Your task to perform on an android device: star an email in the gmail app Image 0: 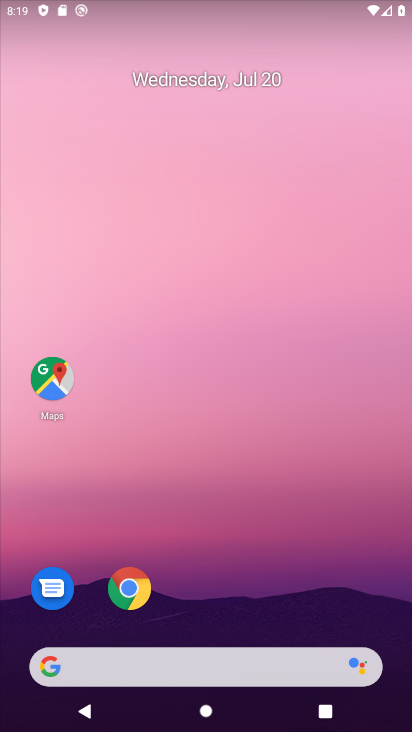
Step 0: drag from (224, 525) to (319, 26)
Your task to perform on an android device: star an email in the gmail app Image 1: 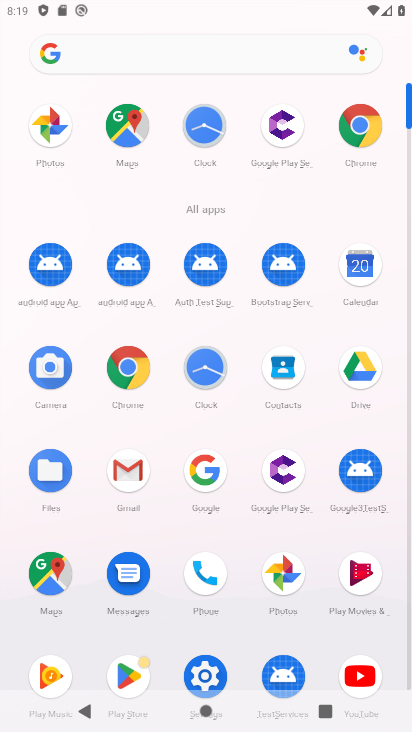
Step 1: click (121, 472)
Your task to perform on an android device: star an email in the gmail app Image 2: 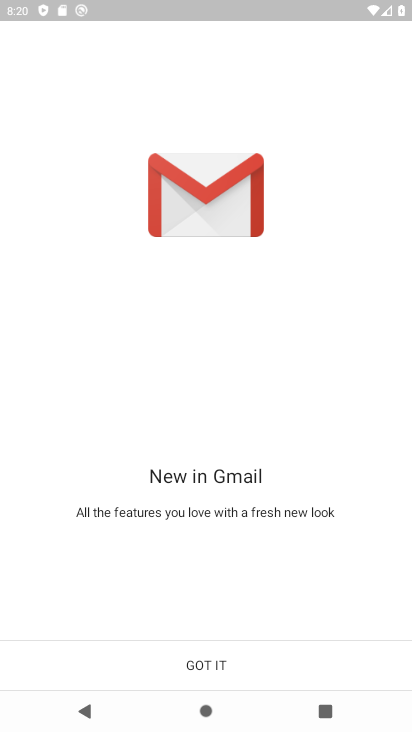
Step 2: click (193, 671)
Your task to perform on an android device: star an email in the gmail app Image 3: 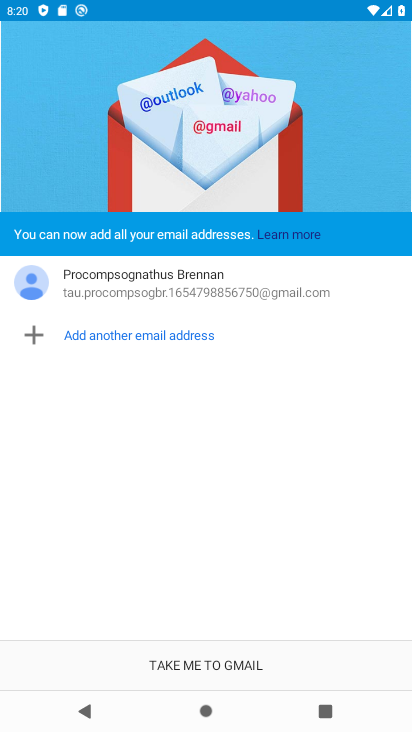
Step 3: click (193, 671)
Your task to perform on an android device: star an email in the gmail app Image 4: 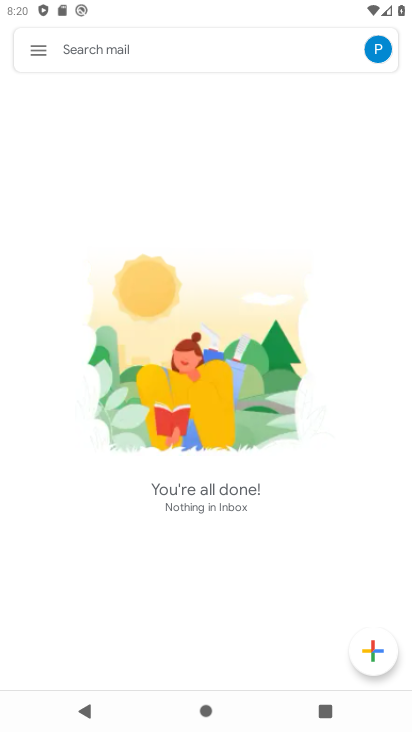
Step 4: task complete